Your task to perform on an android device: choose inbox layout in the gmail app Image 0: 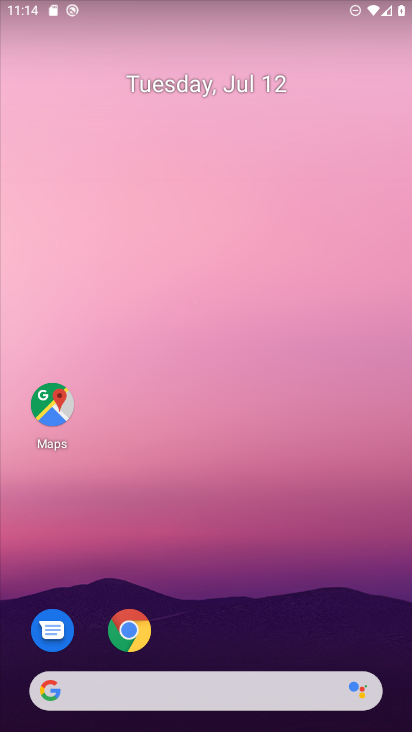
Step 0: drag from (304, 613) to (225, 157)
Your task to perform on an android device: choose inbox layout in the gmail app Image 1: 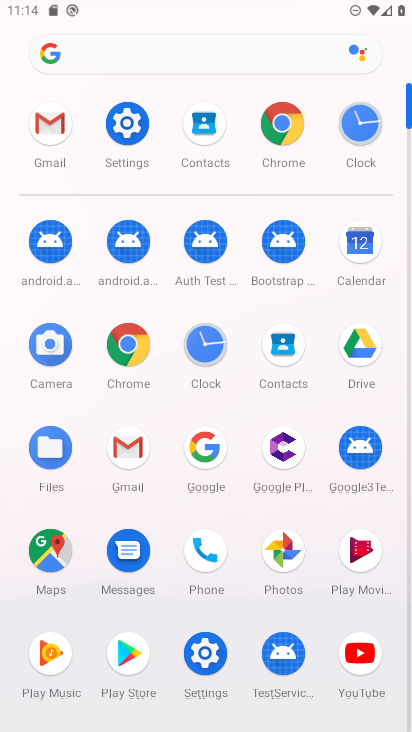
Step 1: click (56, 122)
Your task to perform on an android device: choose inbox layout in the gmail app Image 2: 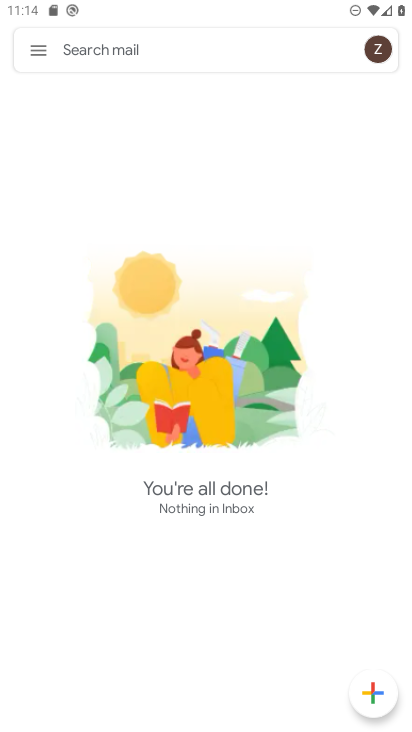
Step 2: click (48, 50)
Your task to perform on an android device: choose inbox layout in the gmail app Image 3: 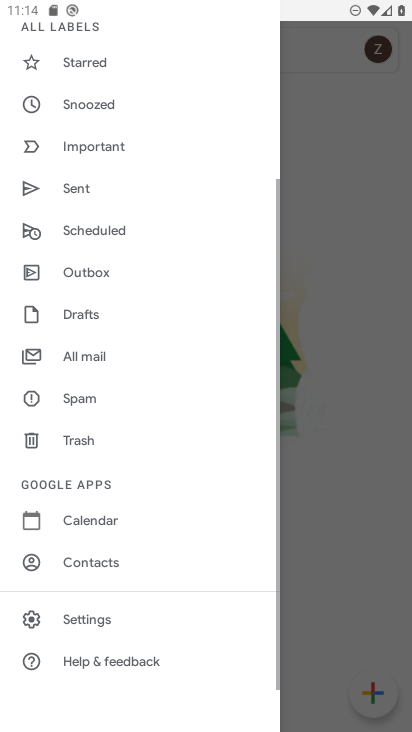
Step 3: click (121, 619)
Your task to perform on an android device: choose inbox layout in the gmail app Image 4: 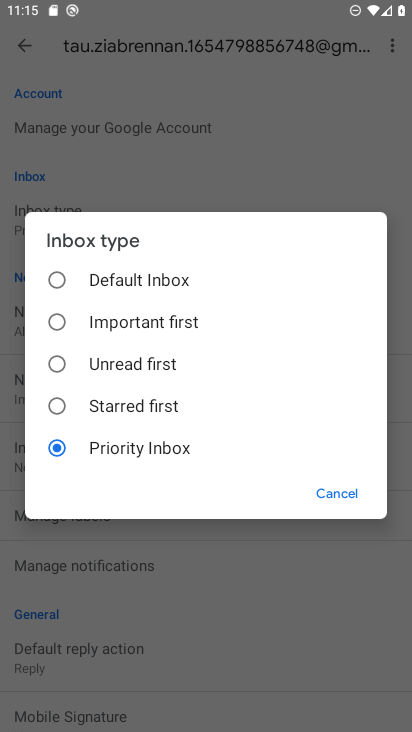
Step 4: task complete